Your task to perform on an android device: Open the web browser Image 0: 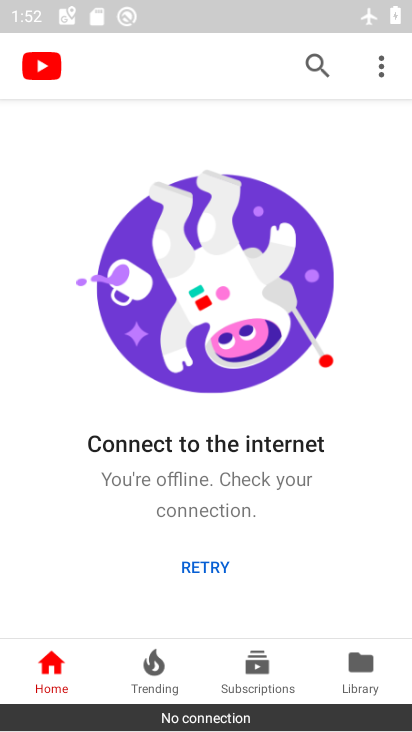
Step 0: press home button
Your task to perform on an android device: Open the web browser Image 1: 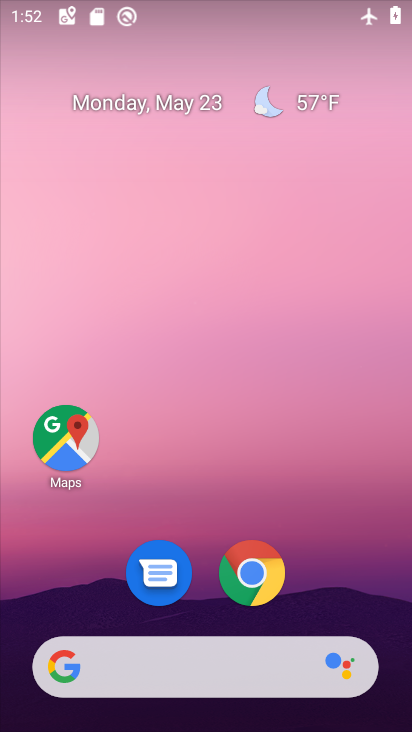
Step 1: click (252, 569)
Your task to perform on an android device: Open the web browser Image 2: 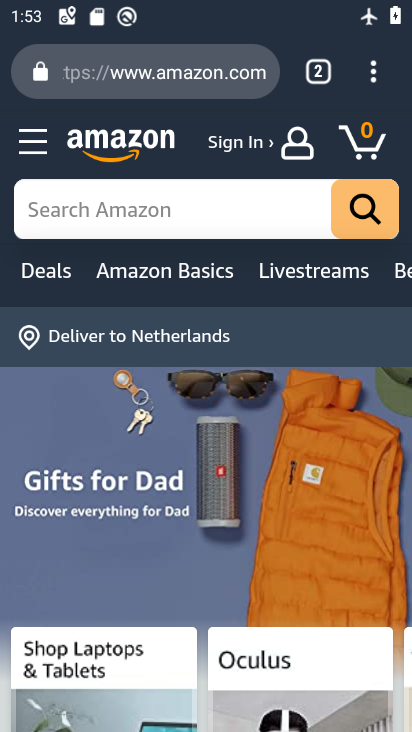
Step 2: task complete